Your task to perform on an android device: turn on priority inbox in the gmail app Image 0: 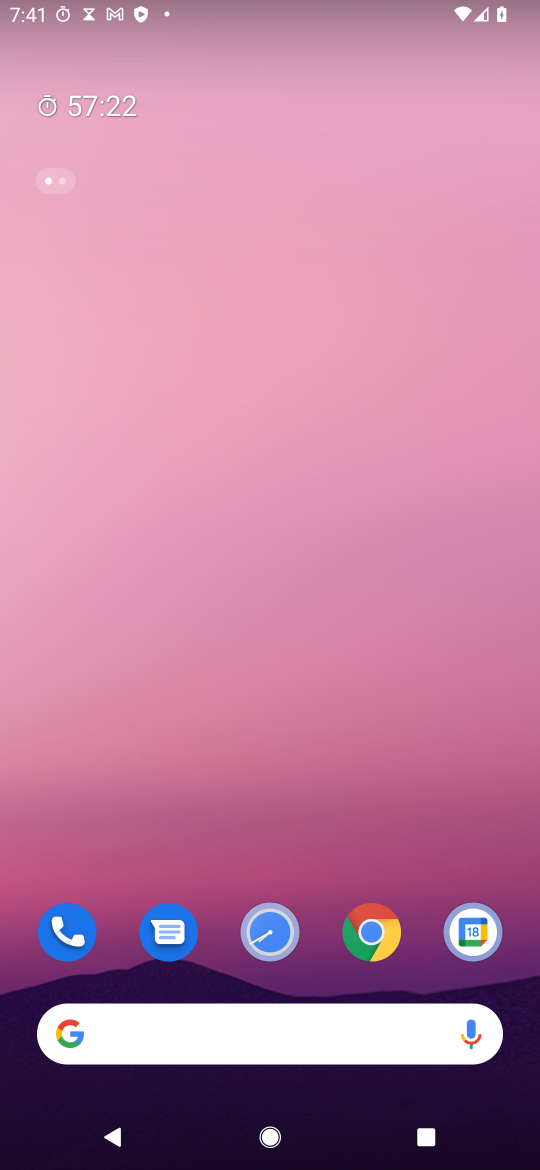
Step 0: drag from (287, 803) to (288, 29)
Your task to perform on an android device: turn on priority inbox in the gmail app Image 1: 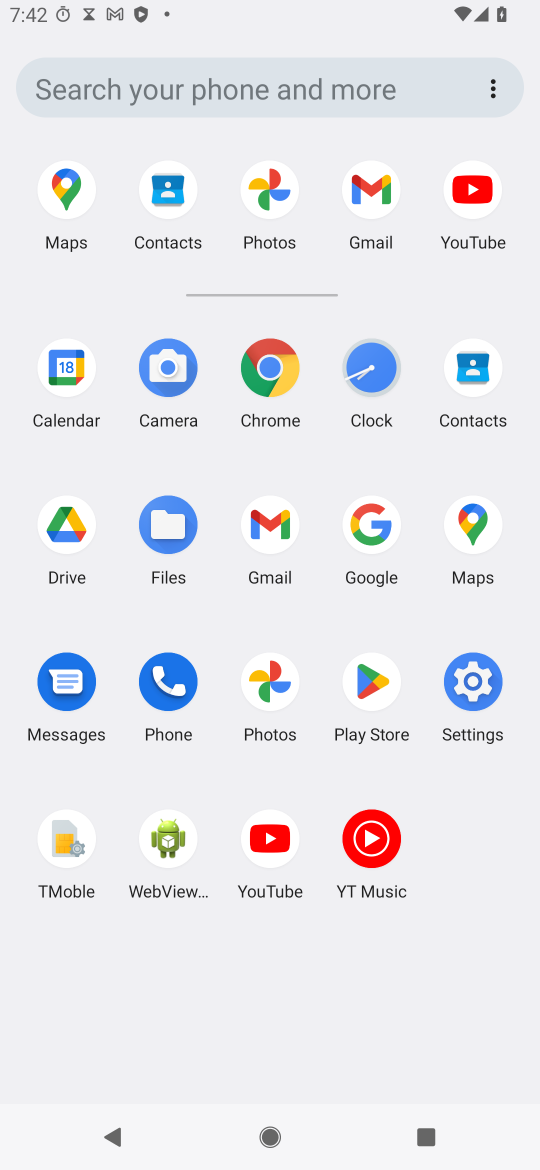
Step 1: click (270, 515)
Your task to perform on an android device: turn on priority inbox in the gmail app Image 2: 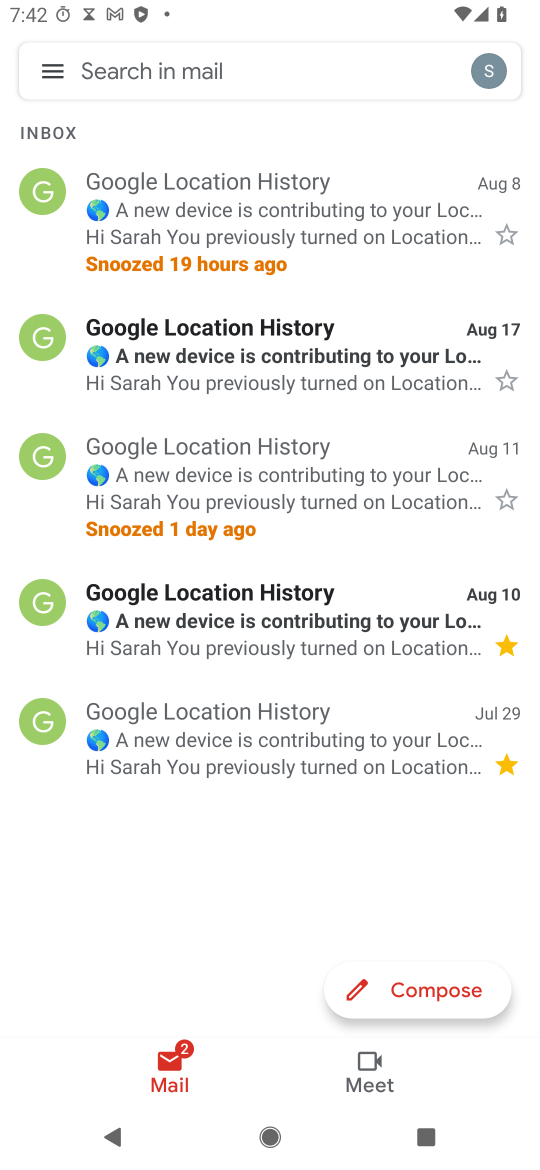
Step 2: click (54, 62)
Your task to perform on an android device: turn on priority inbox in the gmail app Image 3: 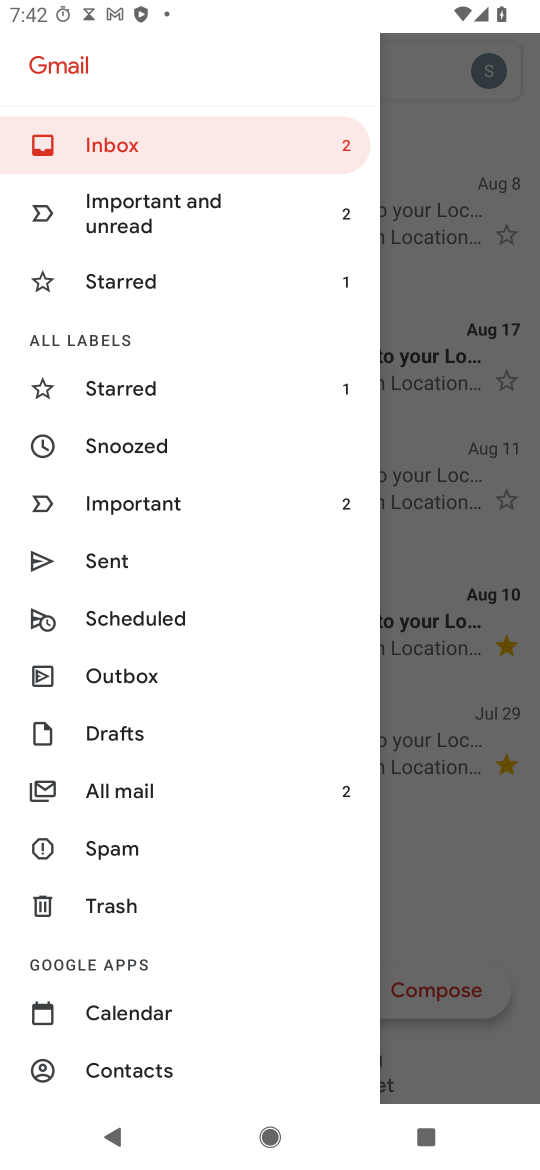
Step 3: drag from (260, 955) to (312, 218)
Your task to perform on an android device: turn on priority inbox in the gmail app Image 4: 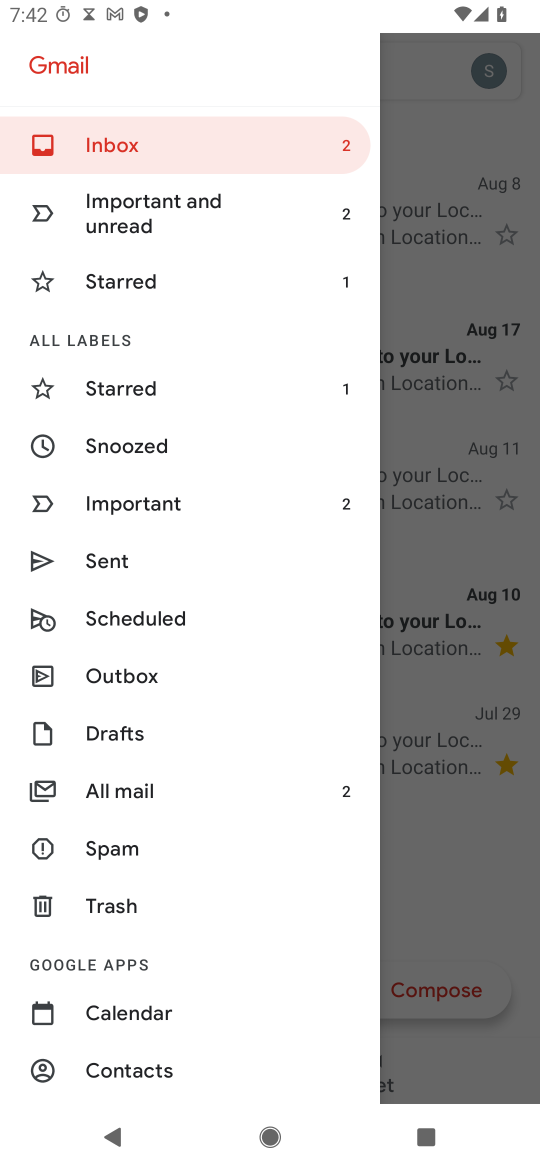
Step 4: drag from (178, 1011) to (227, 208)
Your task to perform on an android device: turn on priority inbox in the gmail app Image 5: 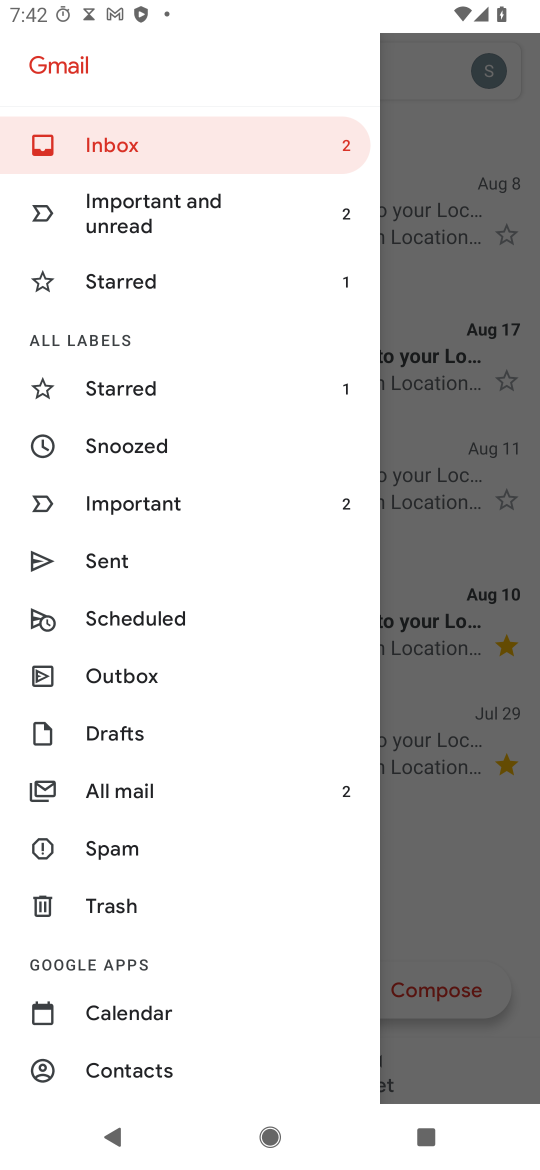
Step 5: drag from (148, 1022) to (244, 331)
Your task to perform on an android device: turn on priority inbox in the gmail app Image 6: 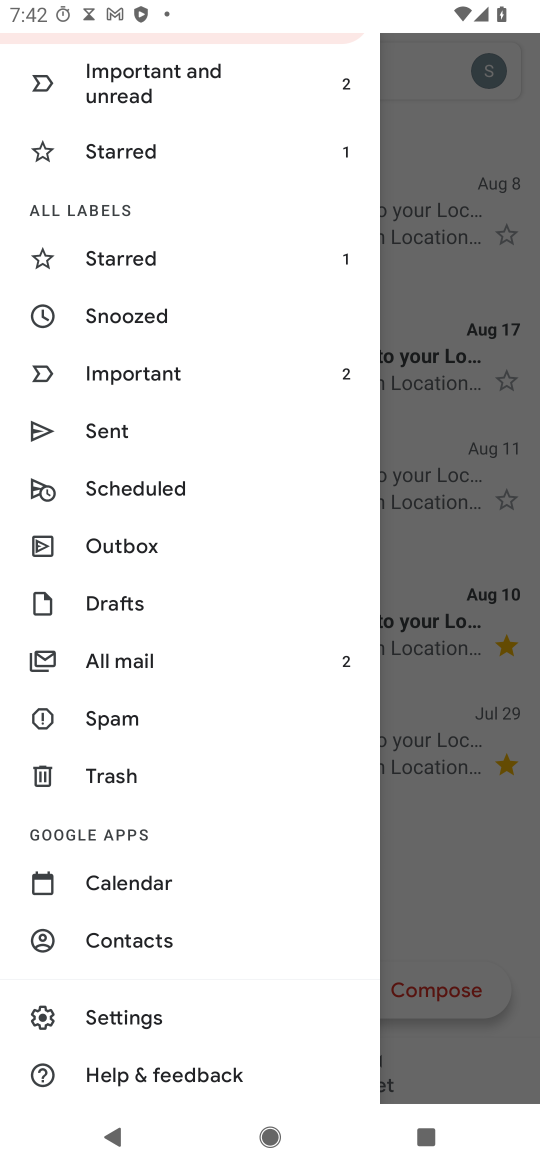
Step 6: click (83, 1020)
Your task to perform on an android device: turn on priority inbox in the gmail app Image 7: 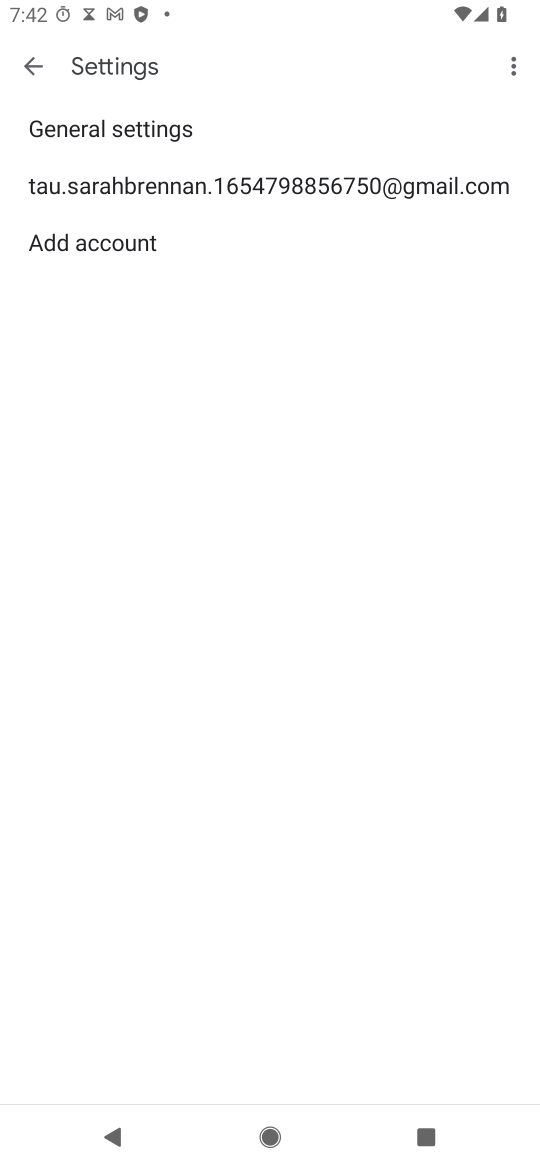
Step 7: click (431, 183)
Your task to perform on an android device: turn on priority inbox in the gmail app Image 8: 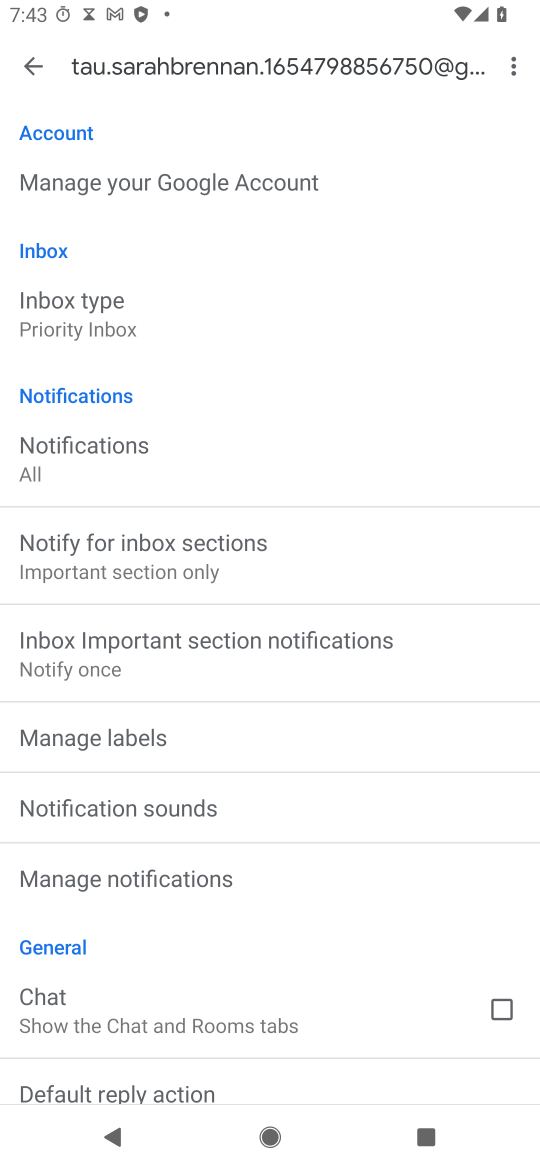
Step 8: click (112, 305)
Your task to perform on an android device: turn on priority inbox in the gmail app Image 9: 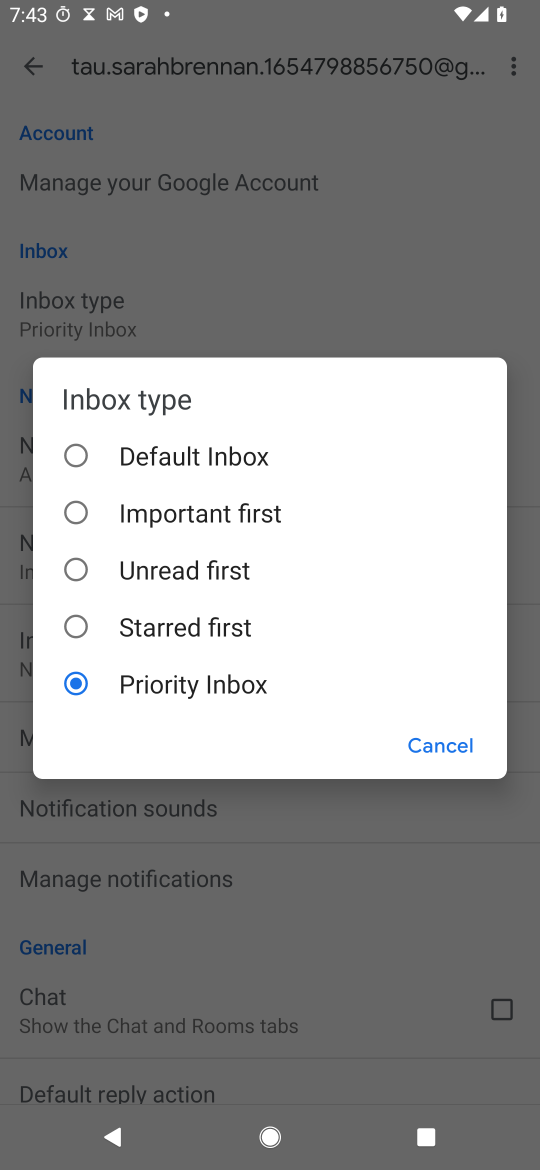
Step 9: task complete